Your task to perform on an android device: Open Google Maps Image 0: 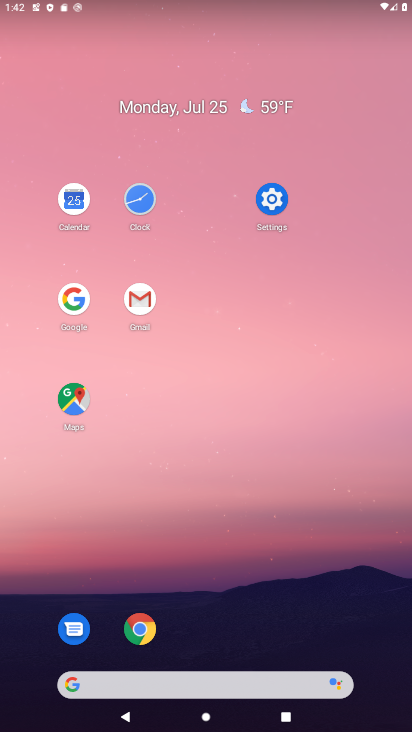
Step 0: click (64, 403)
Your task to perform on an android device: Open Google Maps Image 1: 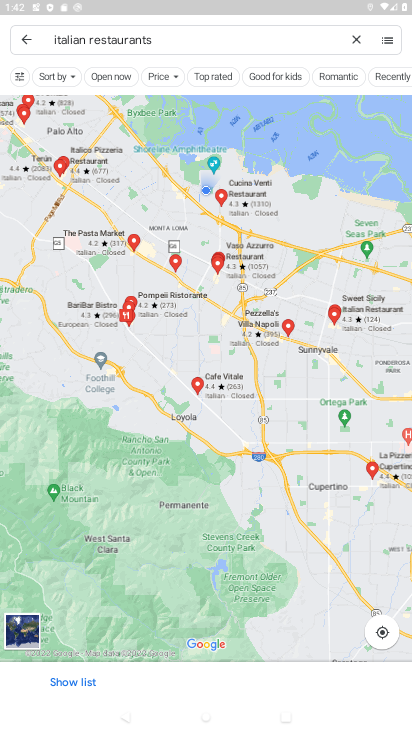
Step 1: task complete